Your task to perform on an android device: Search for pizza restaurants on Maps Image 0: 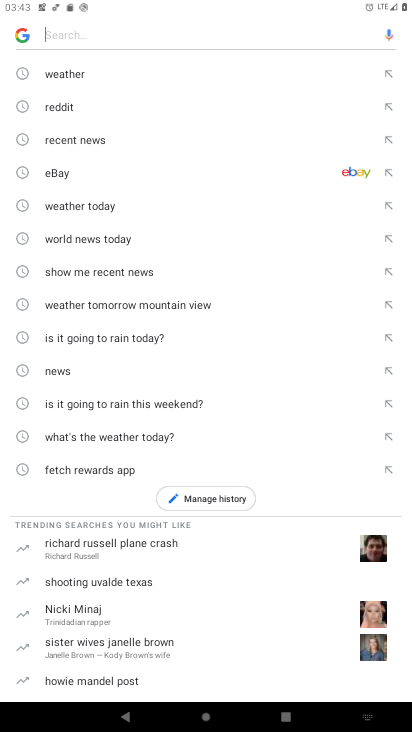
Step 0: press back button
Your task to perform on an android device: Search for pizza restaurants on Maps Image 1: 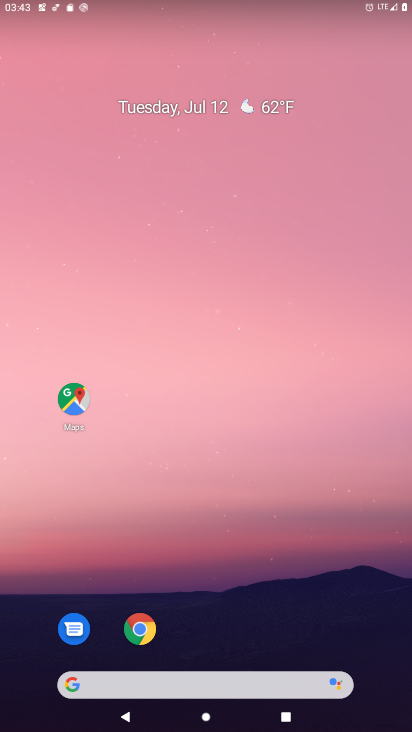
Step 1: drag from (75, 408) to (117, 408)
Your task to perform on an android device: Search for pizza restaurants on Maps Image 2: 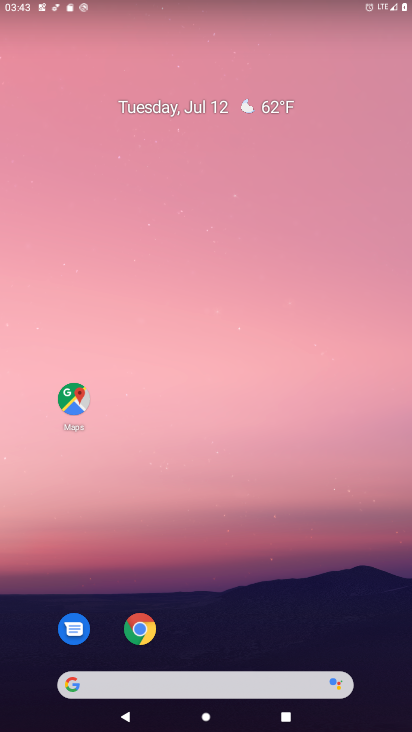
Step 2: click (81, 403)
Your task to perform on an android device: Search for pizza restaurants on Maps Image 3: 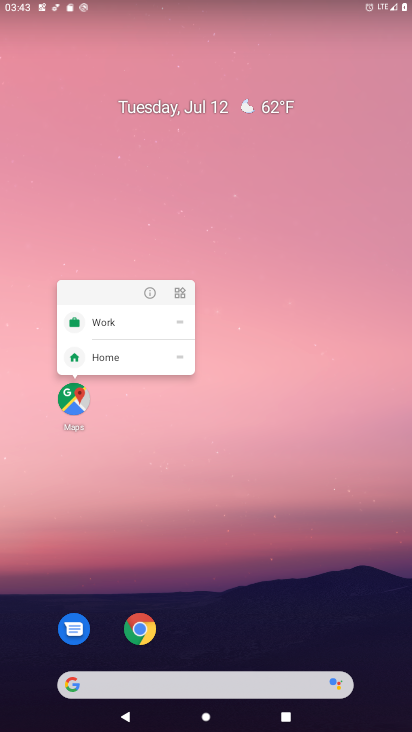
Step 3: click (75, 403)
Your task to perform on an android device: Search for pizza restaurants on Maps Image 4: 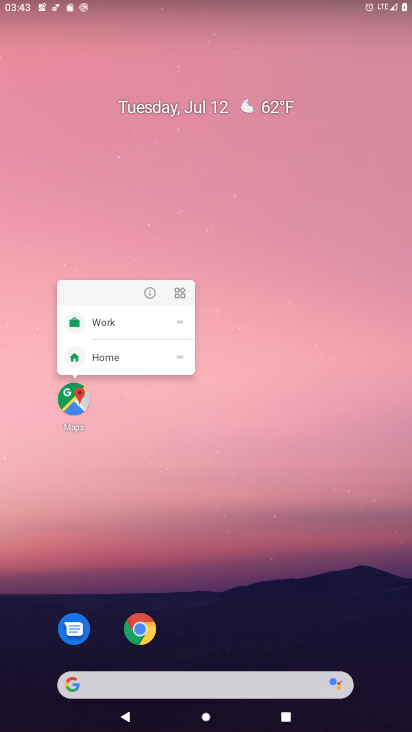
Step 4: click (65, 420)
Your task to perform on an android device: Search for pizza restaurants on Maps Image 5: 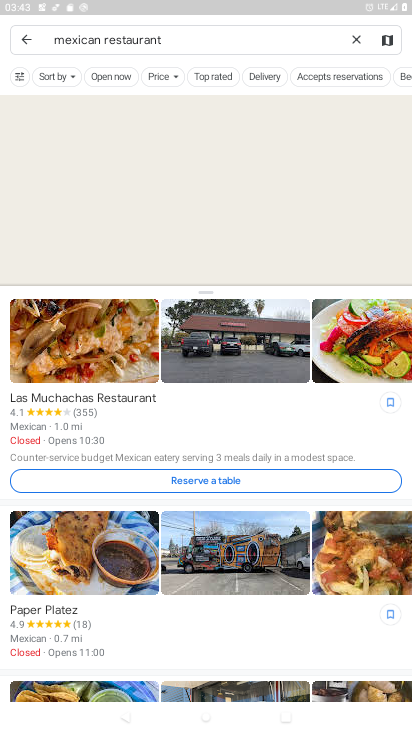
Step 5: click (357, 37)
Your task to perform on an android device: Search for pizza restaurants on Maps Image 6: 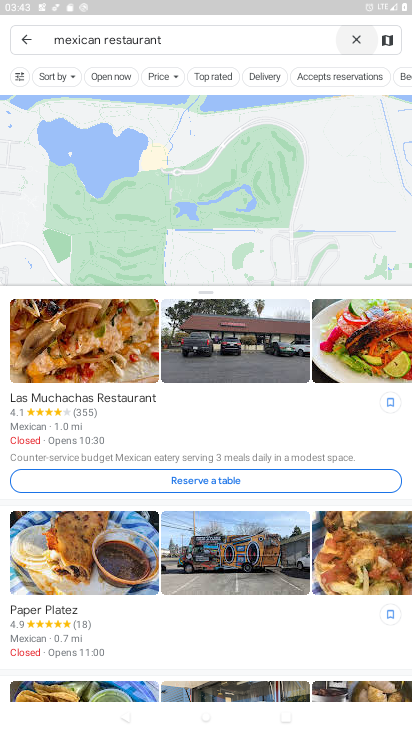
Step 6: click (204, 37)
Your task to perform on an android device: Search for pizza restaurants on Maps Image 7: 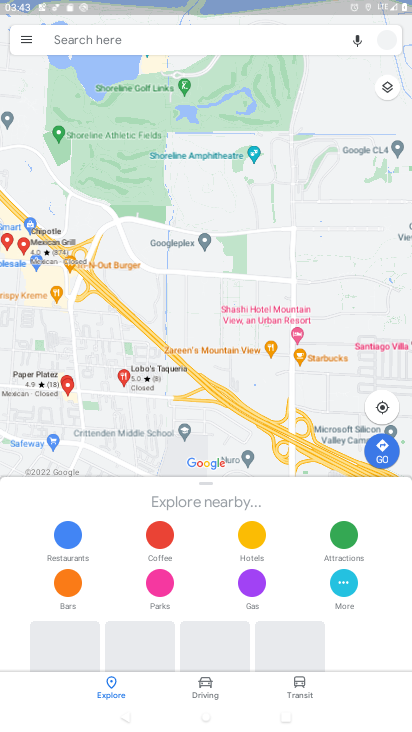
Step 7: click (201, 39)
Your task to perform on an android device: Search for pizza restaurants on Maps Image 8: 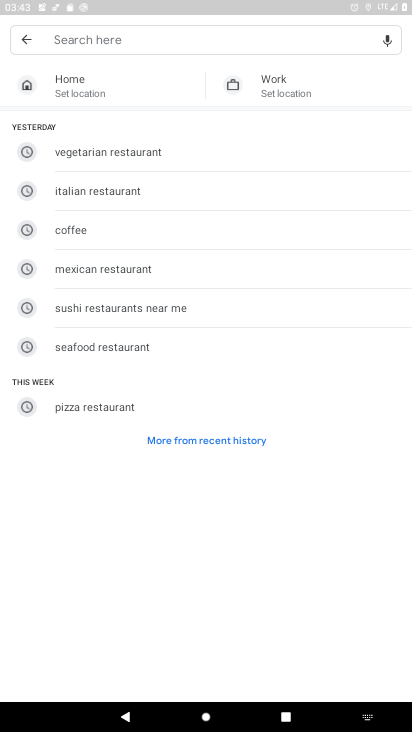
Step 8: click (113, 413)
Your task to perform on an android device: Search for pizza restaurants on Maps Image 9: 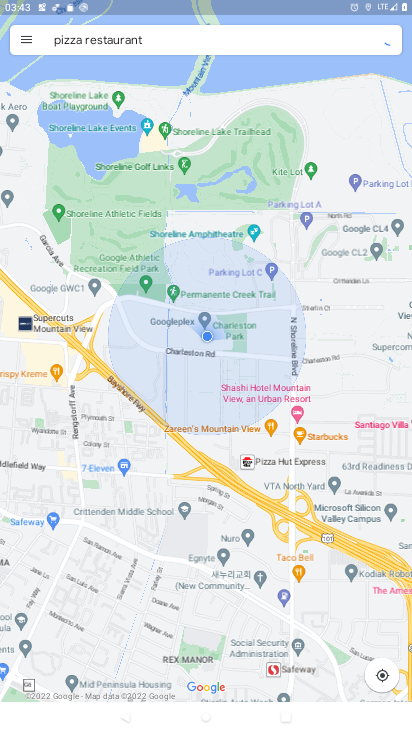
Step 9: task complete